Your task to perform on an android device: Go to Reddit.com Image 0: 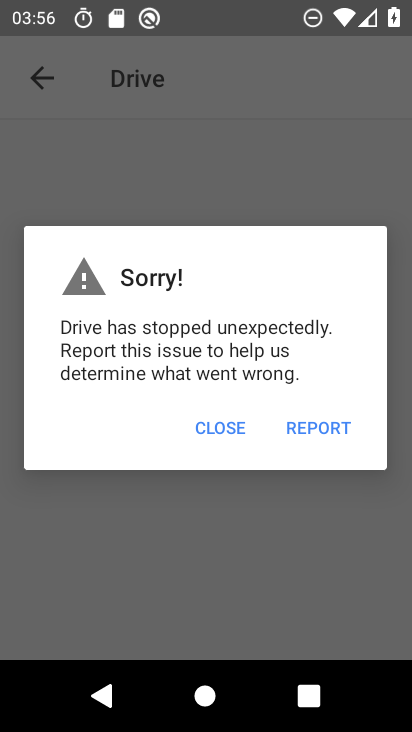
Step 0: press home button
Your task to perform on an android device: Go to Reddit.com Image 1: 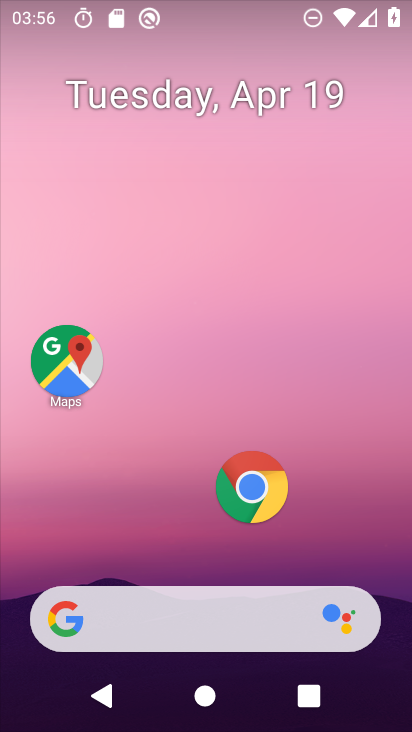
Step 1: click (249, 480)
Your task to perform on an android device: Go to Reddit.com Image 2: 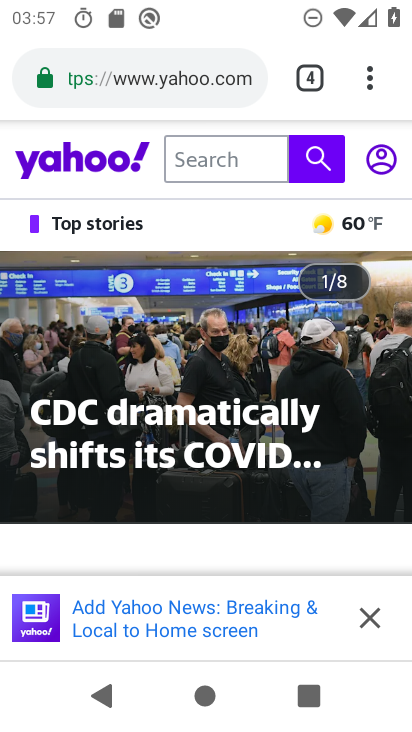
Step 2: click (315, 74)
Your task to perform on an android device: Go to Reddit.com Image 3: 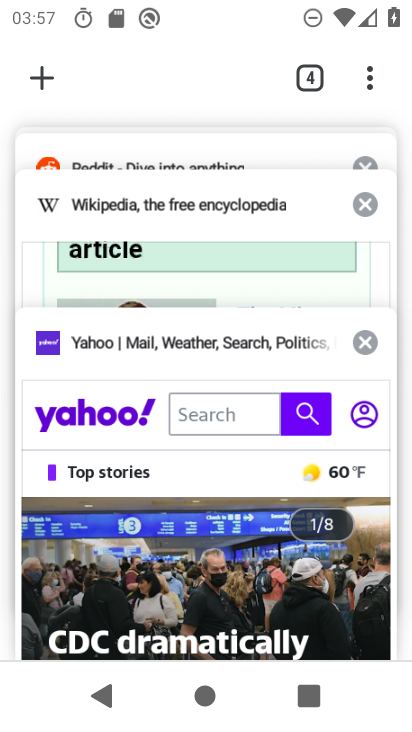
Step 3: click (78, 157)
Your task to perform on an android device: Go to Reddit.com Image 4: 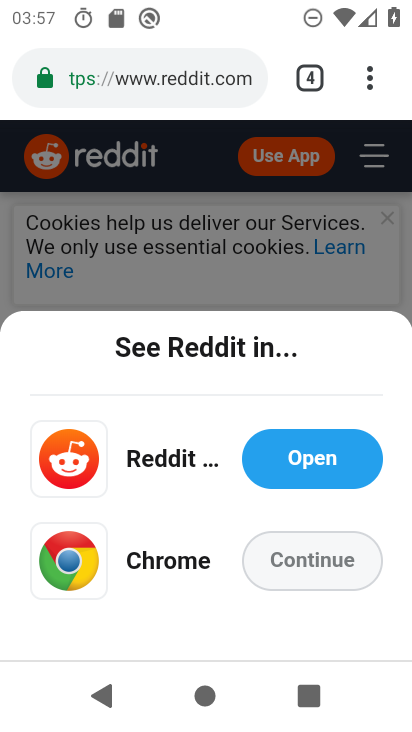
Step 4: task complete